Your task to perform on an android device: Search for coffee table on Crate & Barrel Image 0: 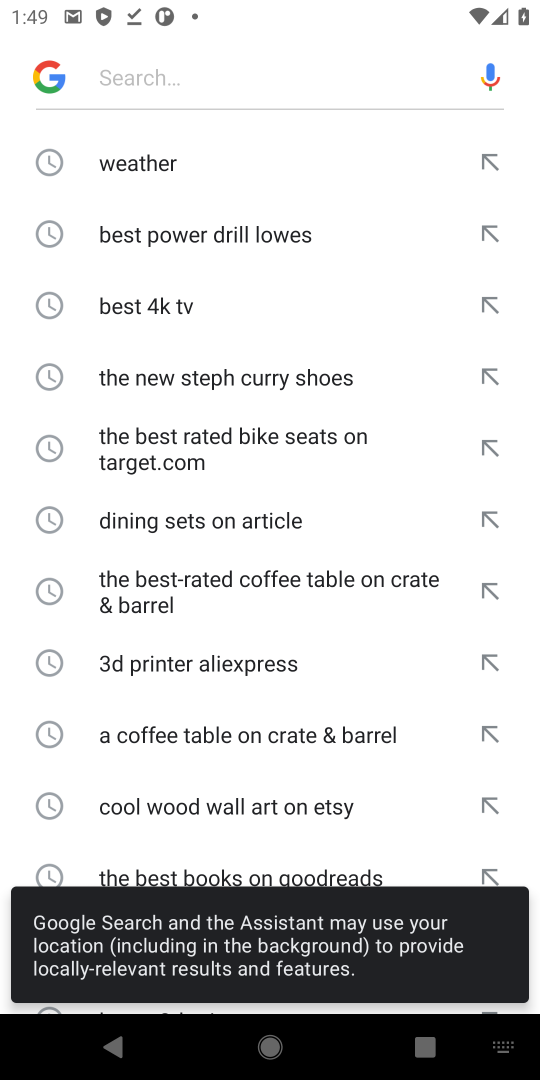
Step 0: press home button
Your task to perform on an android device: Search for coffee table on Crate & Barrel Image 1: 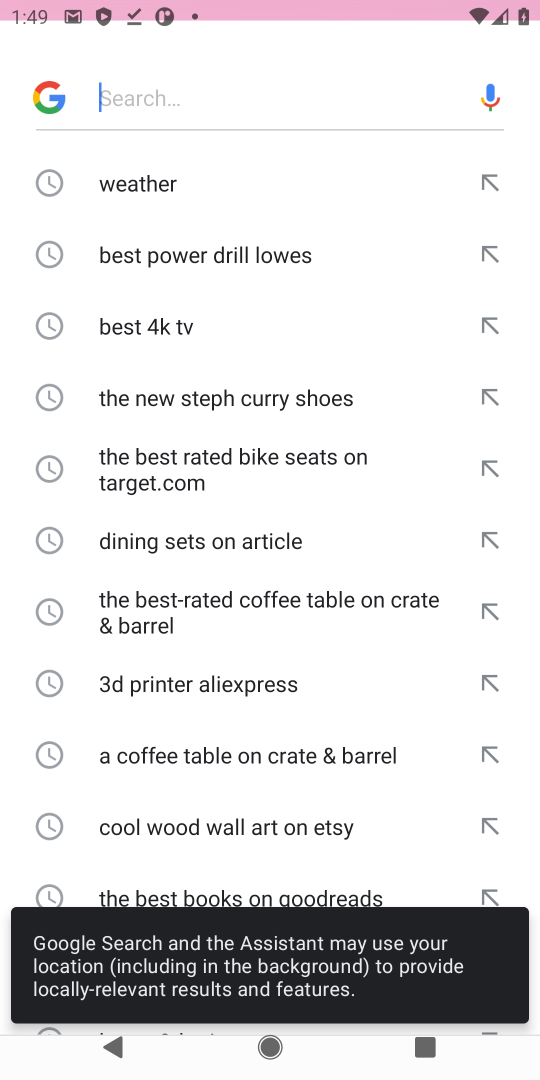
Step 1: press home button
Your task to perform on an android device: Search for coffee table on Crate & Barrel Image 2: 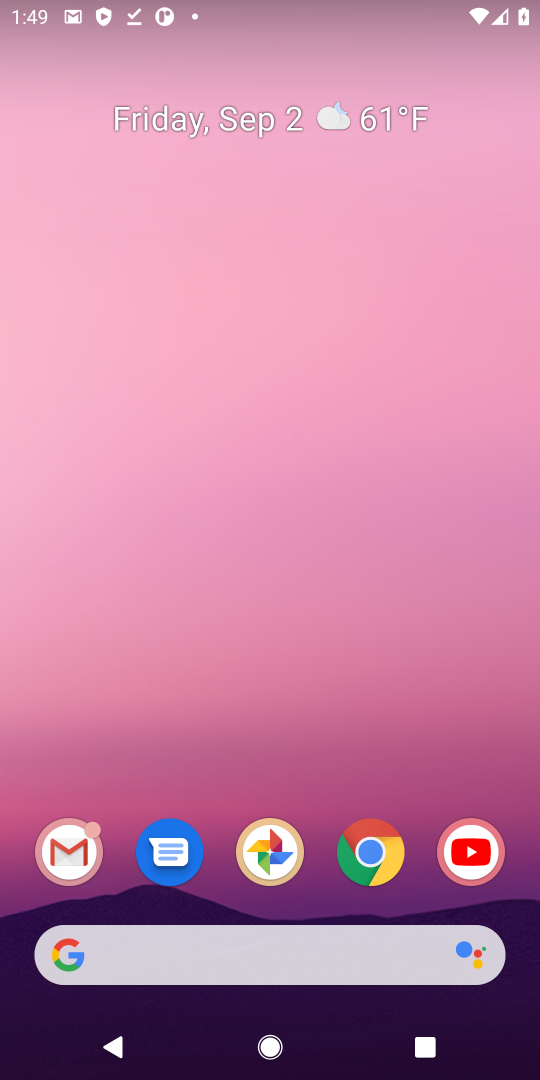
Step 2: click (419, 90)
Your task to perform on an android device: Search for coffee table on Crate & Barrel Image 3: 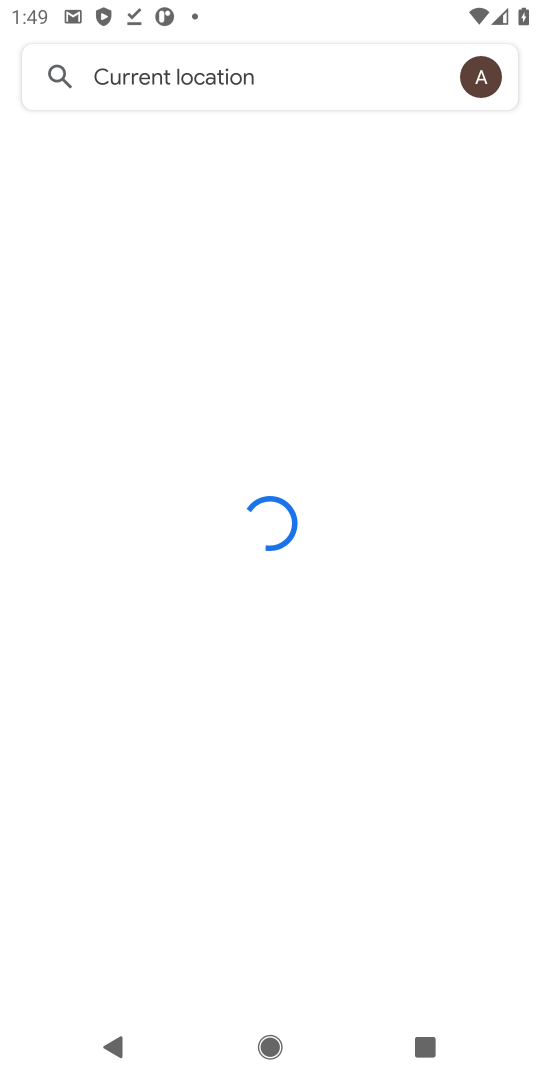
Step 3: drag from (336, 756) to (452, 411)
Your task to perform on an android device: Search for coffee table on Crate & Barrel Image 4: 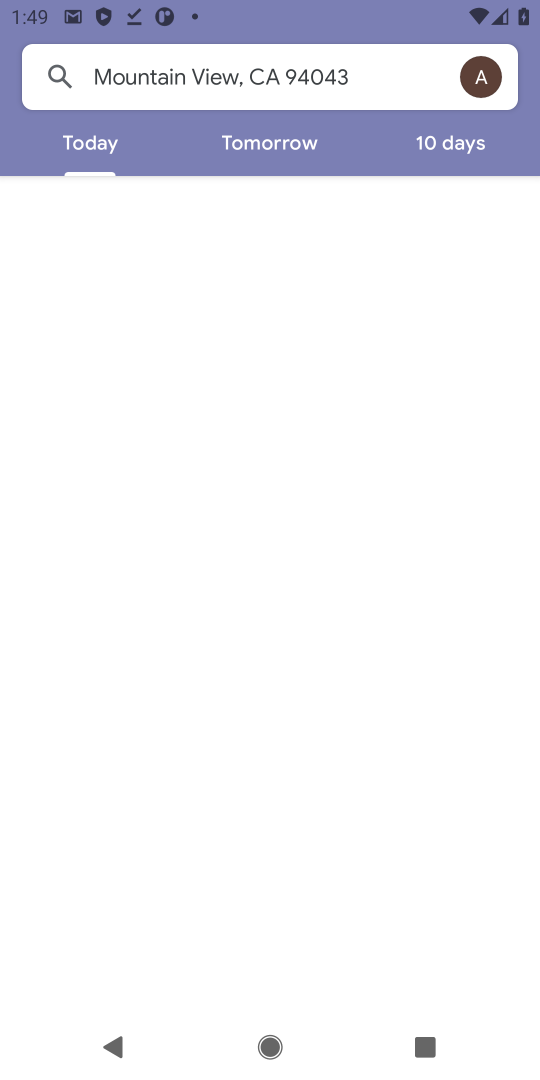
Step 4: press home button
Your task to perform on an android device: Search for coffee table on Crate & Barrel Image 5: 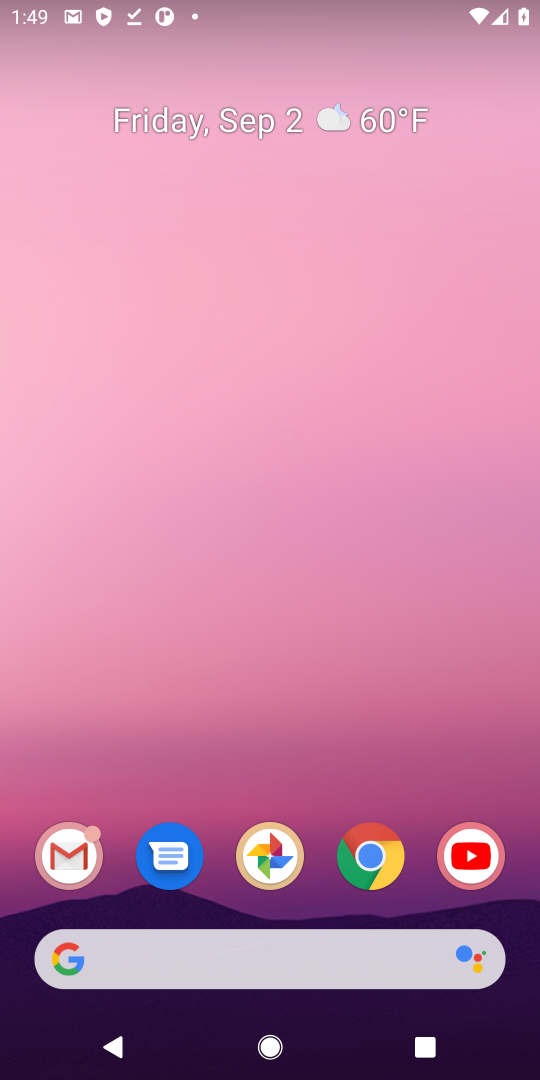
Step 5: press home button
Your task to perform on an android device: Search for coffee table on Crate & Barrel Image 6: 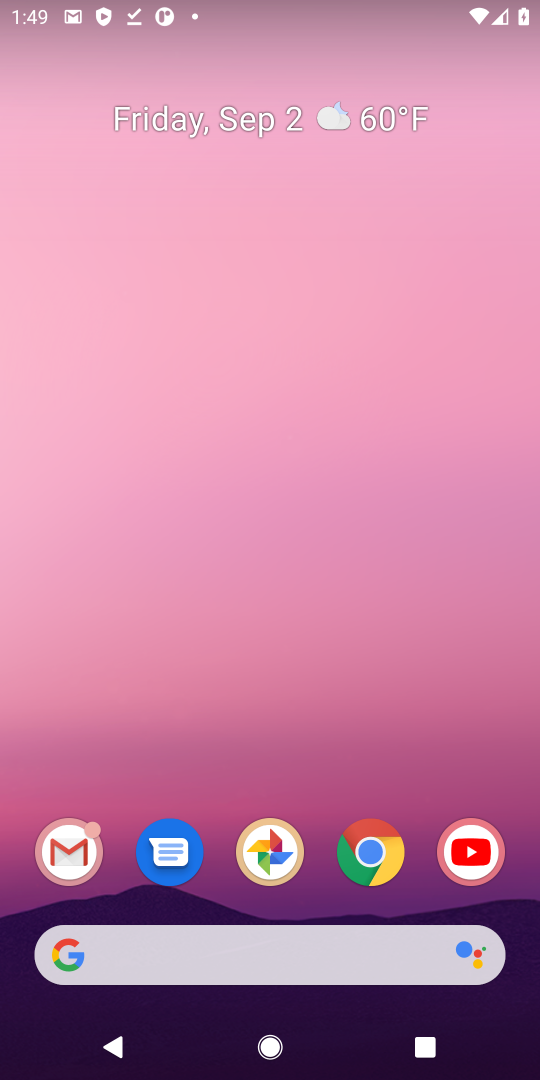
Step 6: click (369, 34)
Your task to perform on an android device: Search for coffee table on Crate & Barrel Image 7: 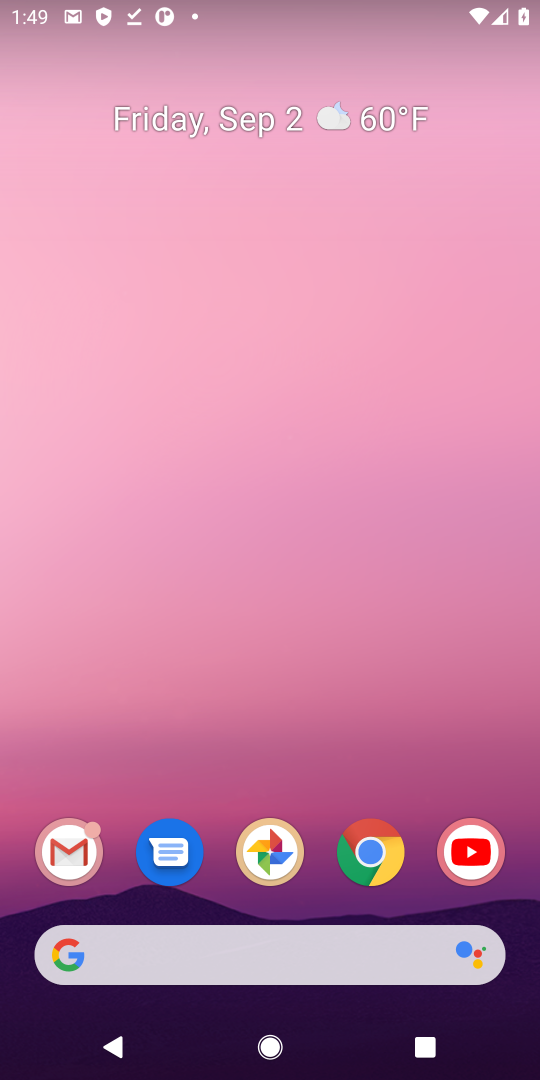
Step 7: drag from (304, 797) to (409, 43)
Your task to perform on an android device: Search for coffee table on Crate & Barrel Image 8: 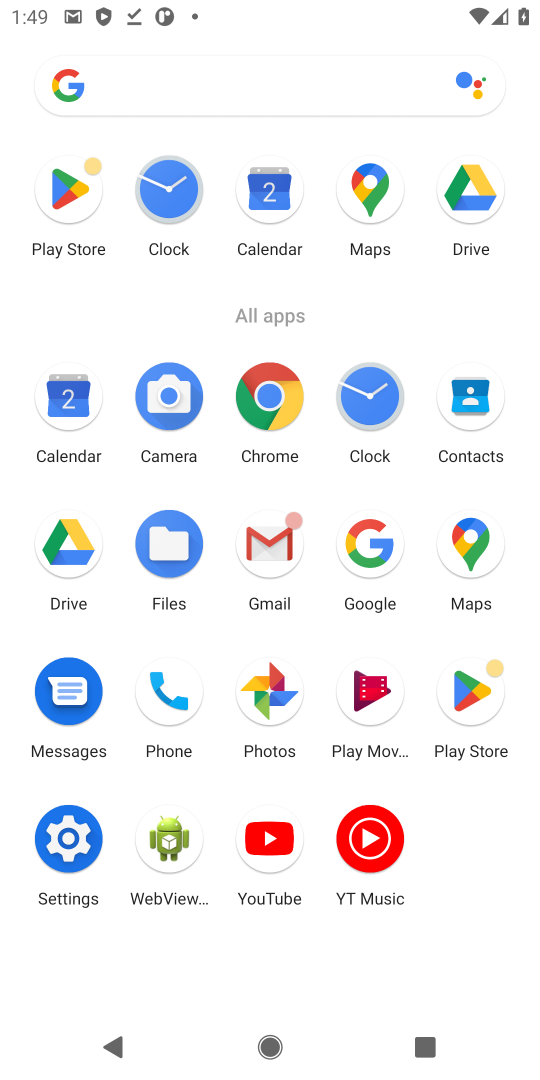
Step 8: click (273, 392)
Your task to perform on an android device: Search for coffee table on Crate & Barrel Image 9: 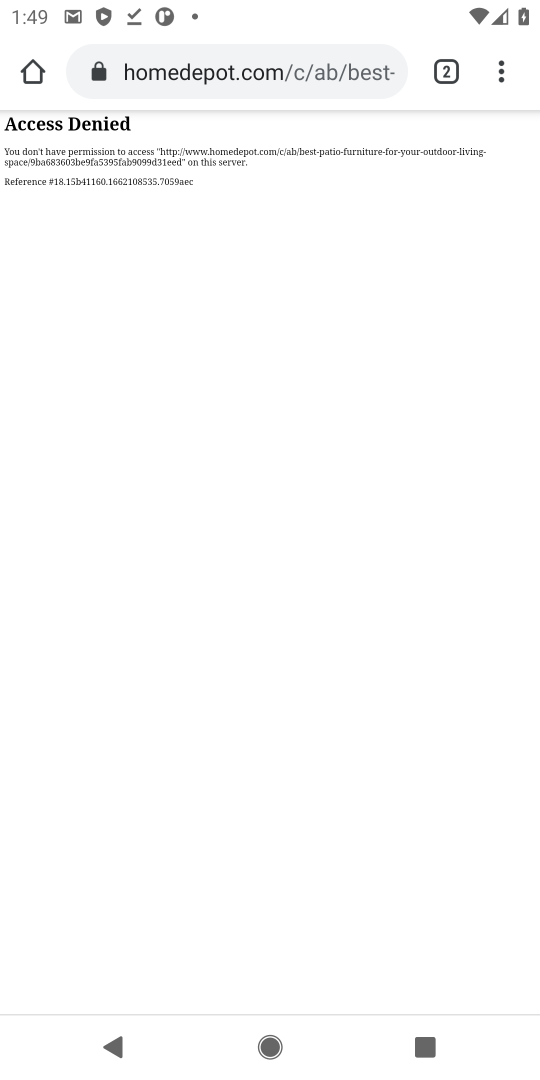
Step 9: click (356, 76)
Your task to perform on an android device: Search for coffee table on Crate & Barrel Image 10: 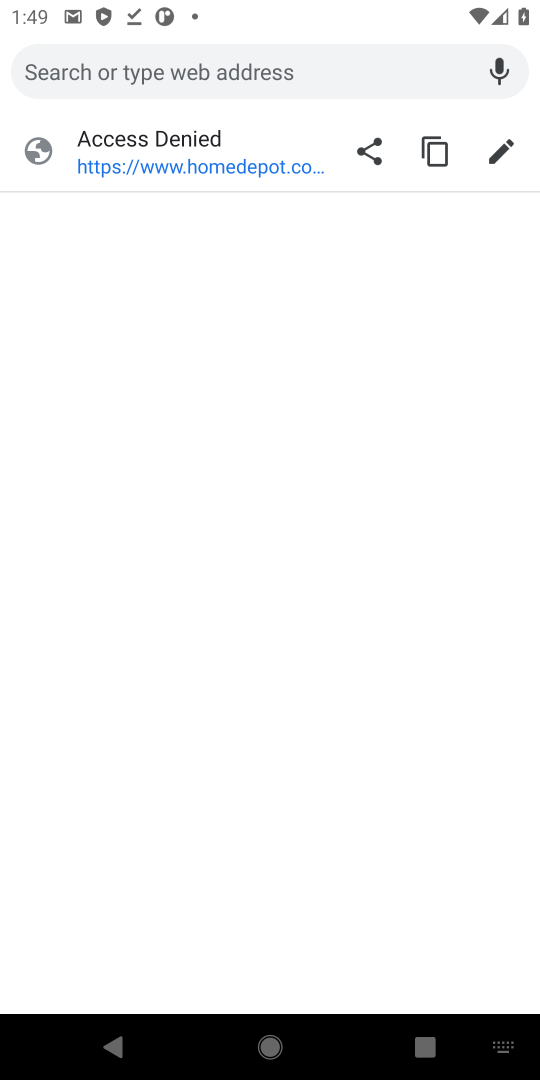
Step 10: type "coffee table on create & barrel"
Your task to perform on an android device: Search for coffee table on Crate & Barrel Image 11: 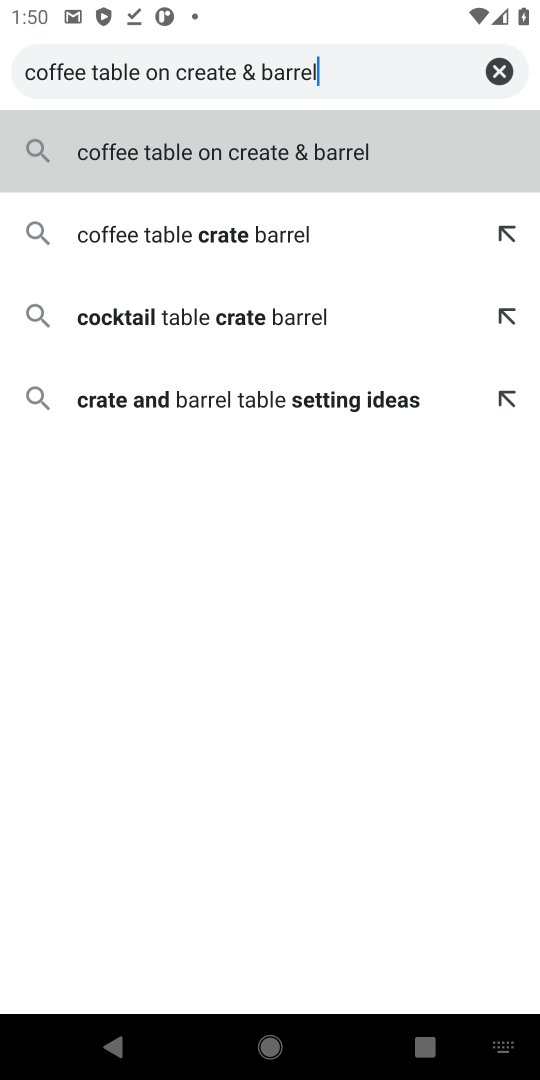
Step 11: click (251, 157)
Your task to perform on an android device: Search for coffee table on Crate & Barrel Image 12: 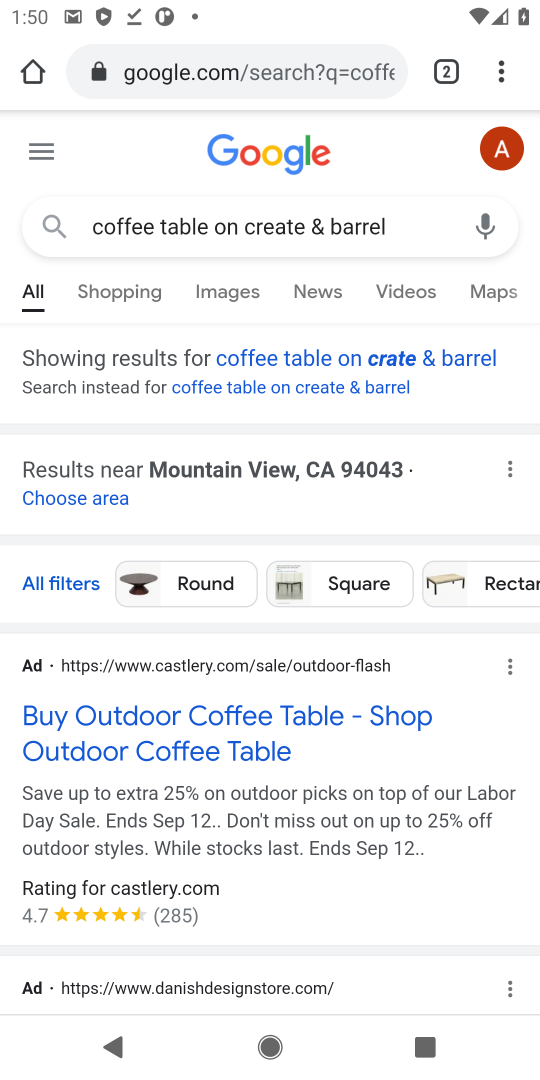
Step 12: drag from (277, 835) to (345, 47)
Your task to perform on an android device: Search for coffee table on Crate & Barrel Image 13: 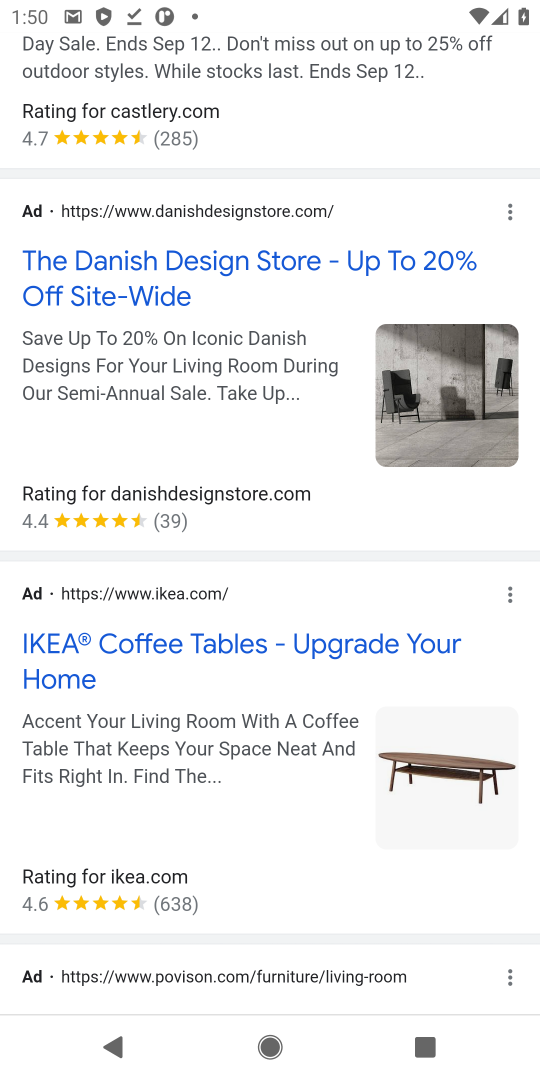
Step 13: drag from (261, 742) to (372, 73)
Your task to perform on an android device: Search for coffee table on Crate & Barrel Image 14: 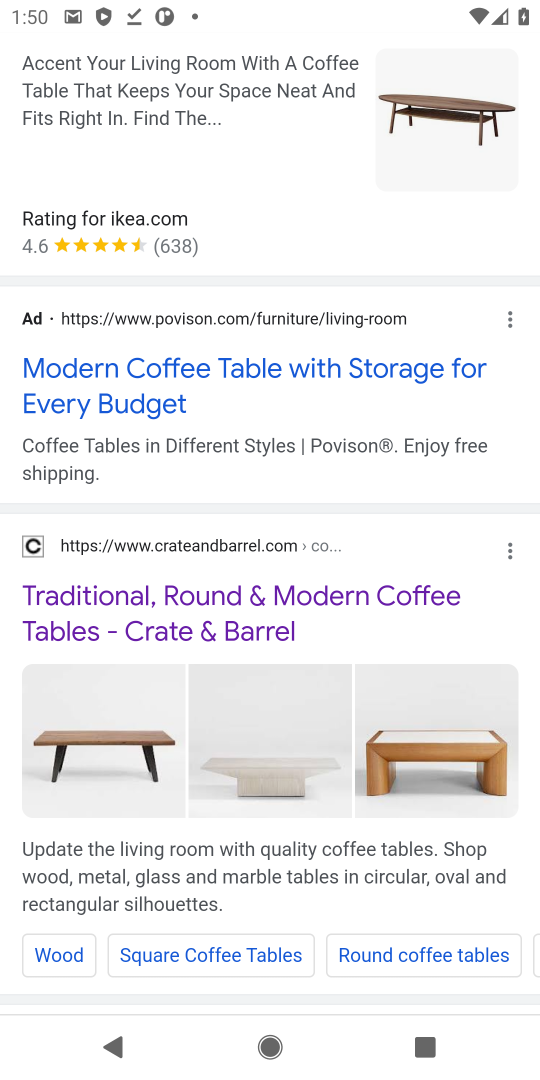
Step 14: click (223, 615)
Your task to perform on an android device: Search for coffee table on Crate & Barrel Image 15: 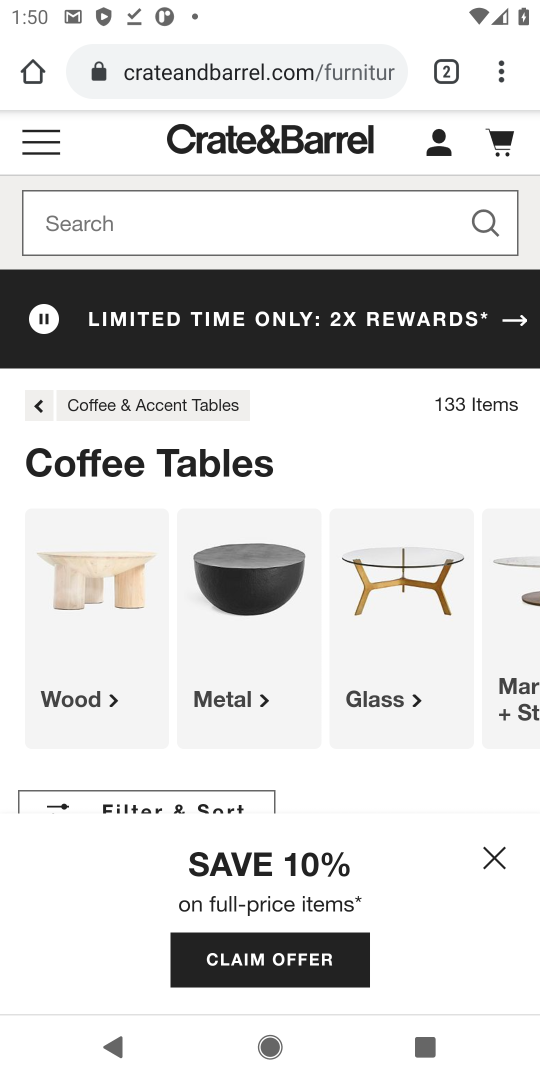
Step 15: task complete